Your task to perform on an android device: Find coffee shops on Maps Image 0: 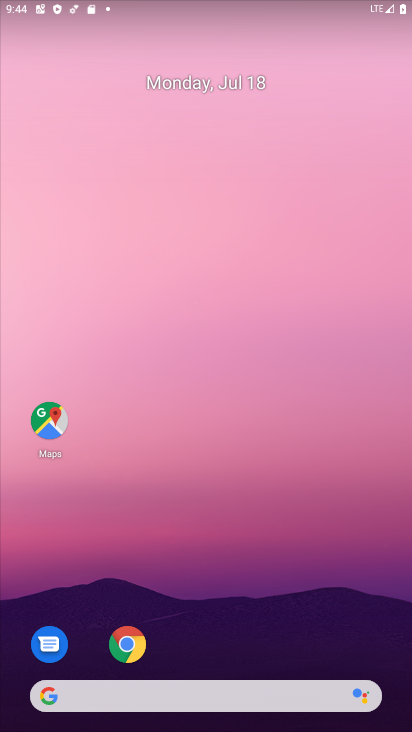
Step 0: drag from (339, 616) to (388, 109)
Your task to perform on an android device: Find coffee shops on Maps Image 1: 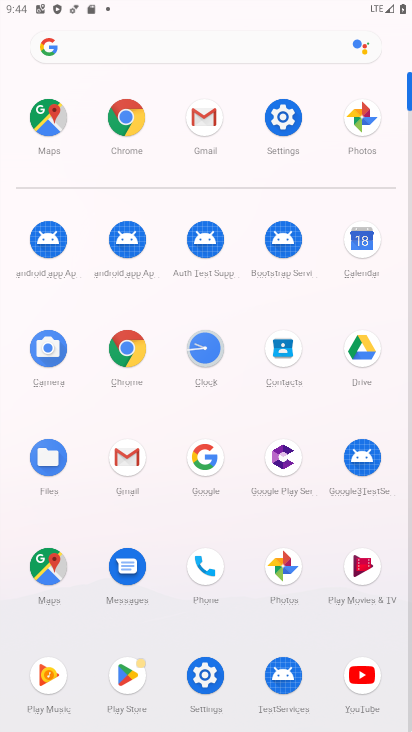
Step 1: click (53, 559)
Your task to perform on an android device: Find coffee shops on Maps Image 2: 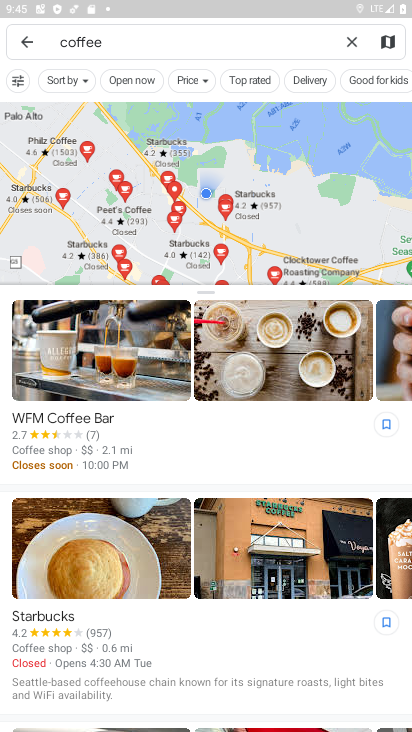
Step 2: task complete